Your task to perform on an android device: turn on translation in the chrome app Image 0: 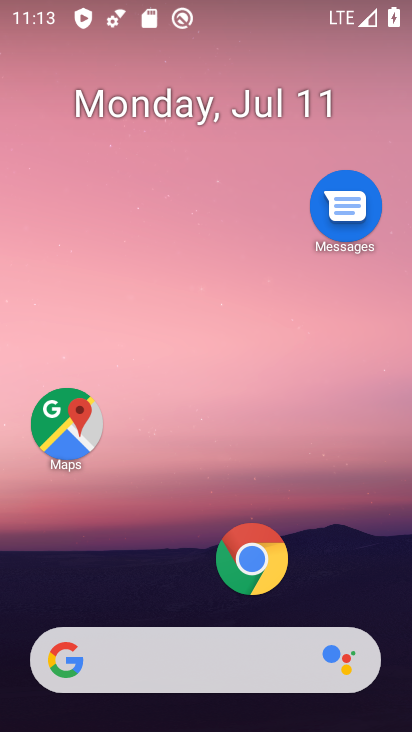
Step 0: drag from (370, 597) to (335, 182)
Your task to perform on an android device: turn on translation in the chrome app Image 1: 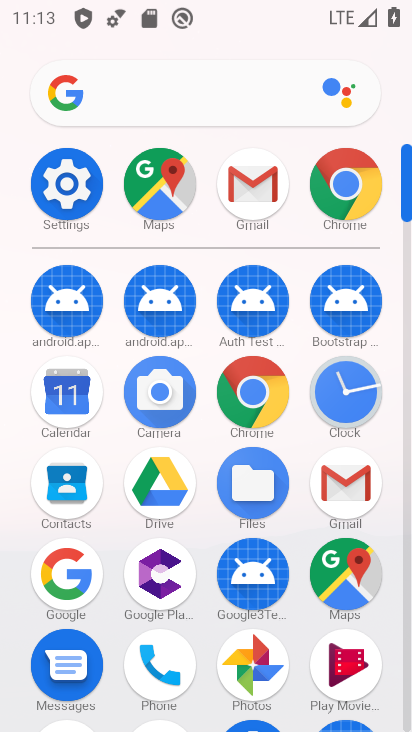
Step 1: click (249, 391)
Your task to perform on an android device: turn on translation in the chrome app Image 2: 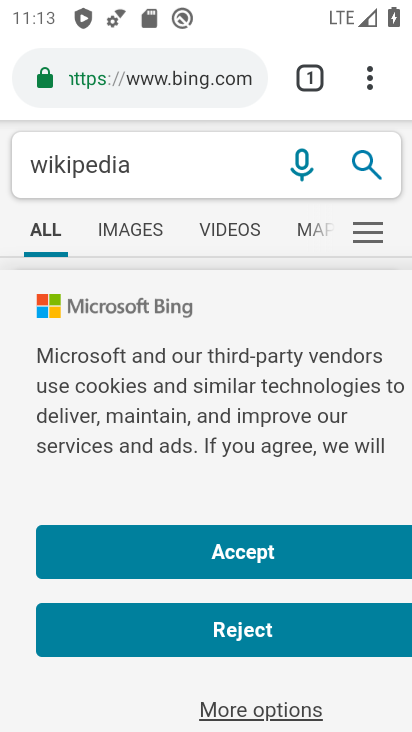
Step 2: click (370, 82)
Your task to perform on an android device: turn on translation in the chrome app Image 3: 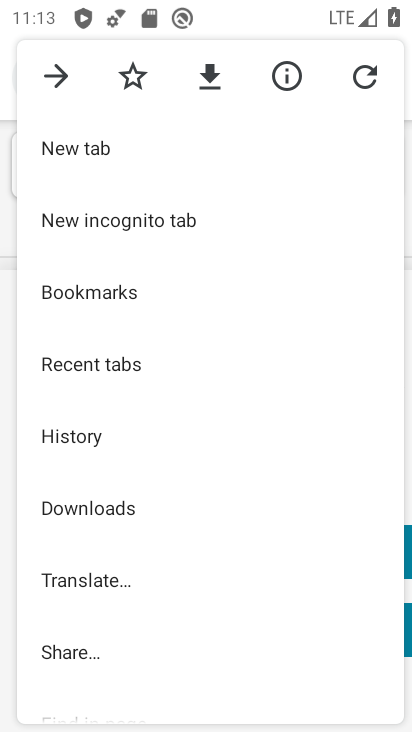
Step 3: drag from (305, 396) to (286, 252)
Your task to perform on an android device: turn on translation in the chrome app Image 4: 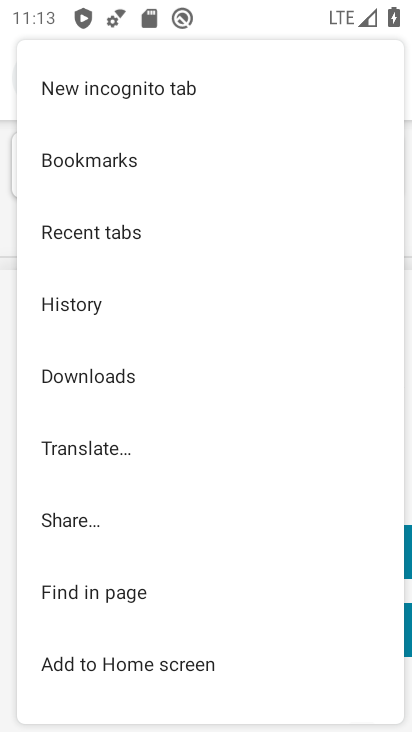
Step 4: drag from (287, 459) to (285, 287)
Your task to perform on an android device: turn on translation in the chrome app Image 5: 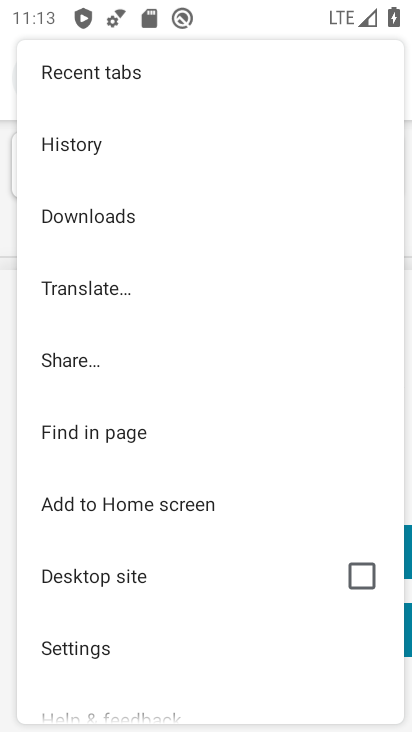
Step 5: drag from (282, 432) to (282, 287)
Your task to perform on an android device: turn on translation in the chrome app Image 6: 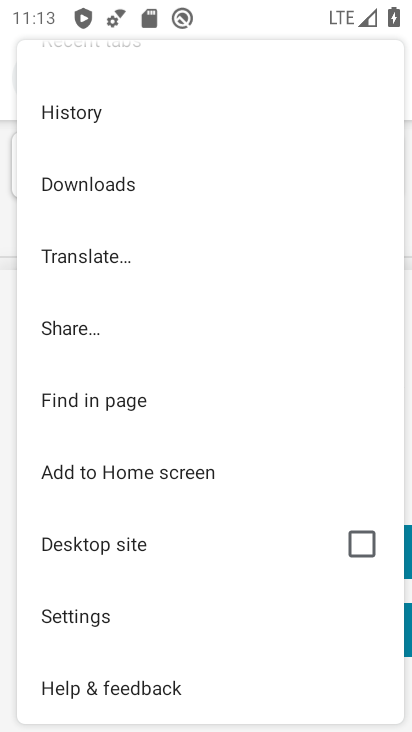
Step 6: click (205, 624)
Your task to perform on an android device: turn on translation in the chrome app Image 7: 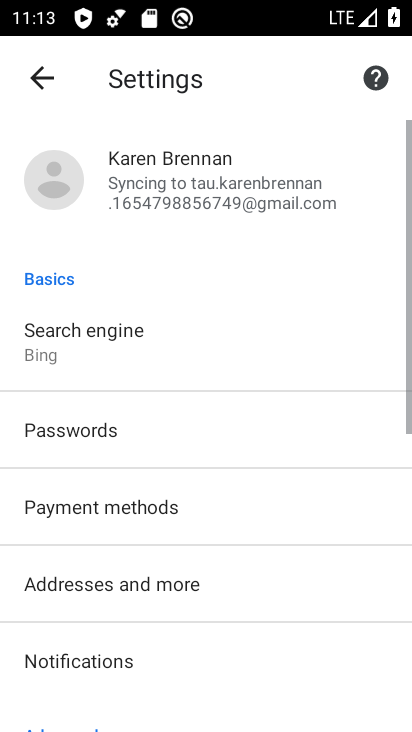
Step 7: drag from (303, 514) to (299, 400)
Your task to perform on an android device: turn on translation in the chrome app Image 8: 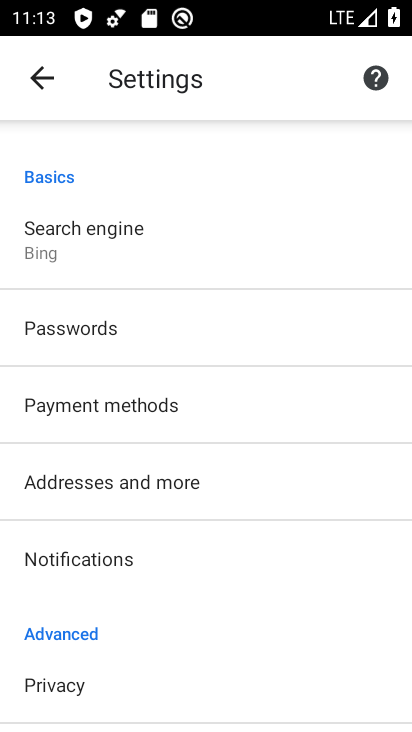
Step 8: drag from (306, 557) to (322, 441)
Your task to perform on an android device: turn on translation in the chrome app Image 9: 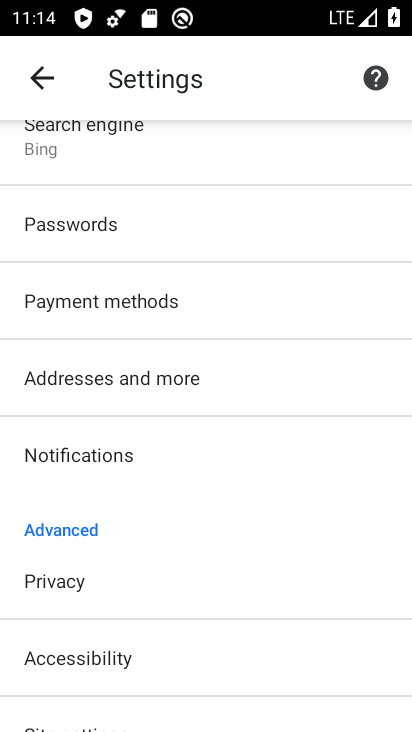
Step 9: drag from (328, 576) to (322, 431)
Your task to perform on an android device: turn on translation in the chrome app Image 10: 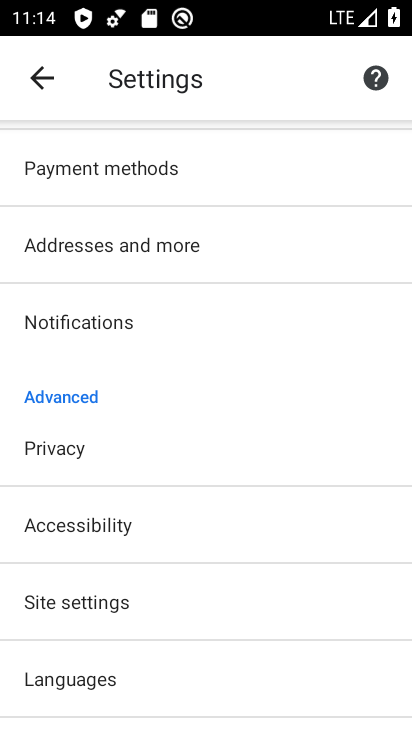
Step 10: drag from (306, 561) to (303, 437)
Your task to perform on an android device: turn on translation in the chrome app Image 11: 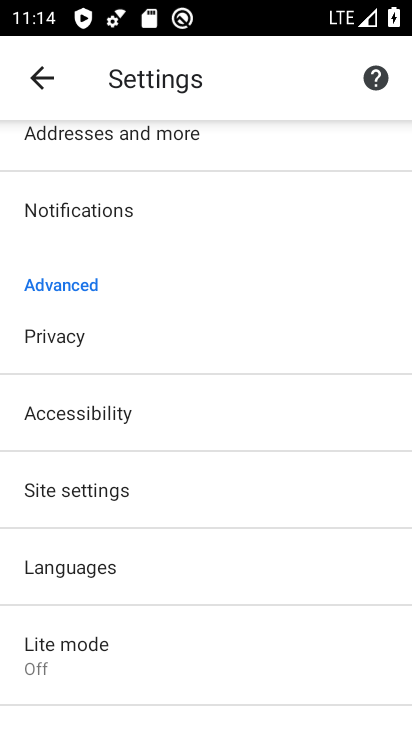
Step 11: click (278, 574)
Your task to perform on an android device: turn on translation in the chrome app Image 12: 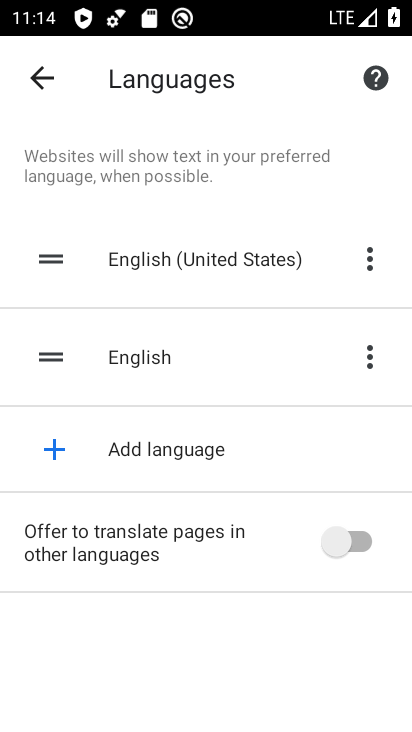
Step 12: click (351, 544)
Your task to perform on an android device: turn on translation in the chrome app Image 13: 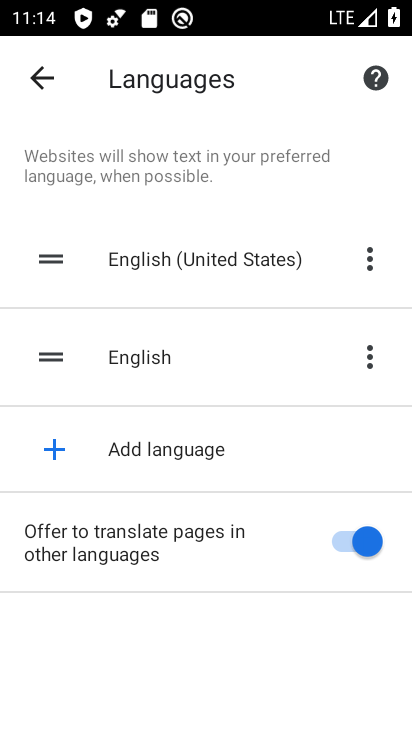
Step 13: task complete